Your task to perform on an android device: turn pop-ups on in chrome Image 0: 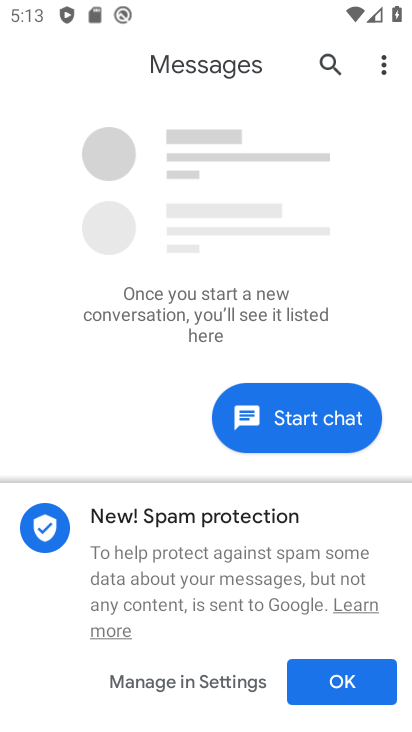
Step 0: press home button
Your task to perform on an android device: turn pop-ups on in chrome Image 1: 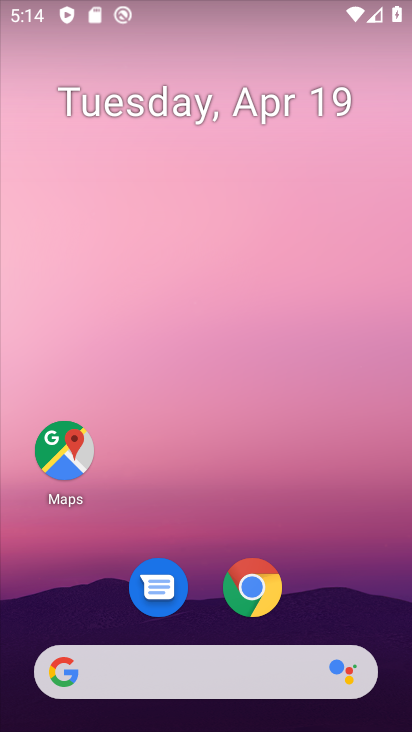
Step 1: click (265, 586)
Your task to perform on an android device: turn pop-ups on in chrome Image 2: 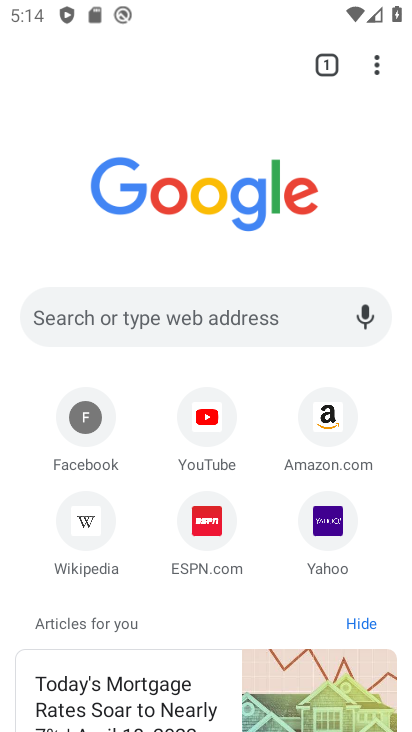
Step 2: click (381, 74)
Your task to perform on an android device: turn pop-ups on in chrome Image 3: 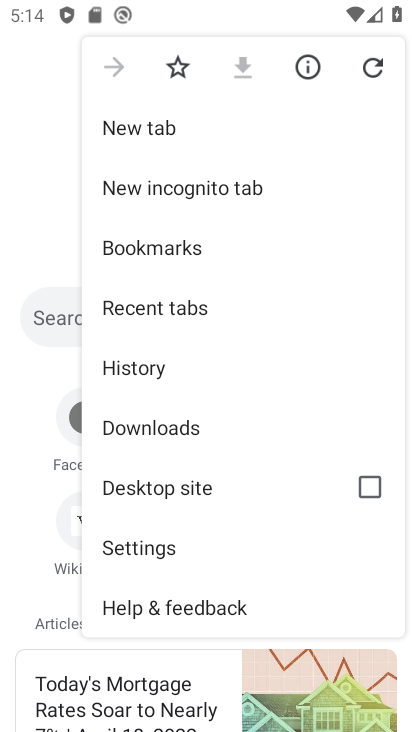
Step 3: click (143, 545)
Your task to perform on an android device: turn pop-ups on in chrome Image 4: 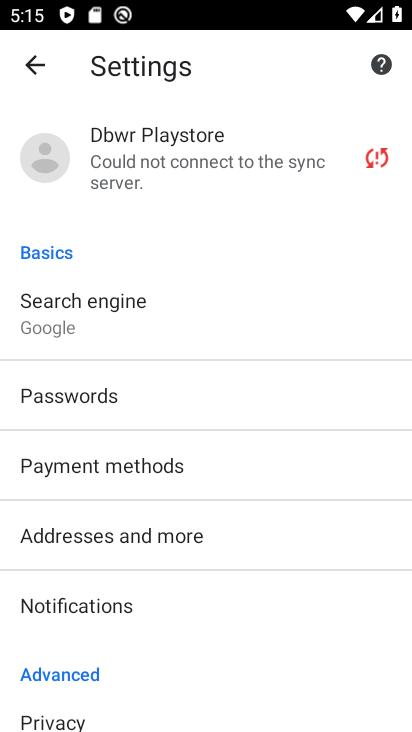
Step 4: drag from (169, 642) to (228, 216)
Your task to perform on an android device: turn pop-ups on in chrome Image 5: 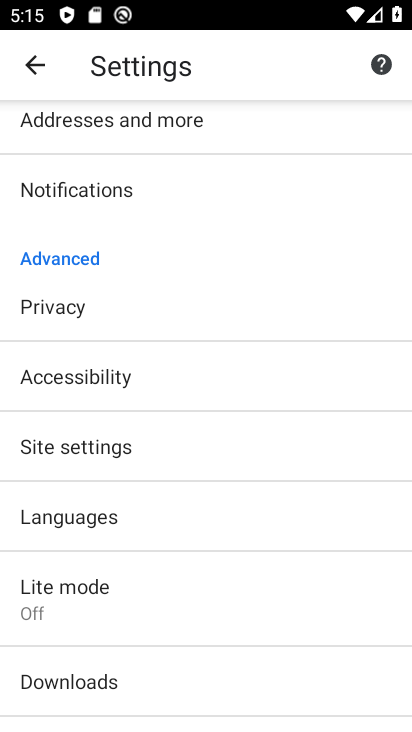
Step 5: click (194, 470)
Your task to perform on an android device: turn pop-ups on in chrome Image 6: 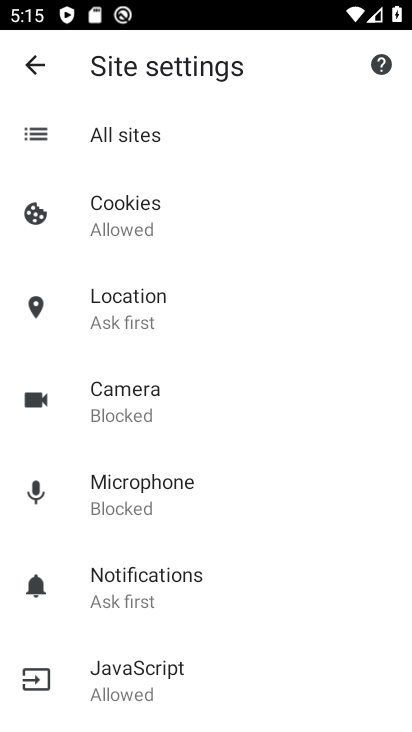
Step 6: drag from (143, 663) to (174, 202)
Your task to perform on an android device: turn pop-ups on in chrome Image 7: 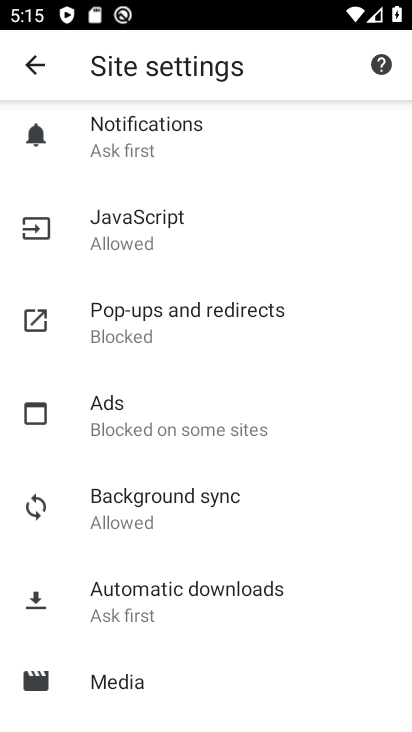
Step 7: click (126, 341)
Your task to perform on an android device: turn pop-ups on in chrome Image 8: 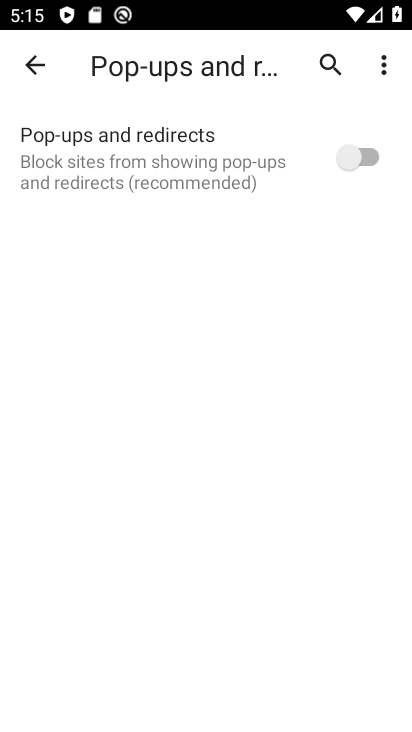
Step 8: click (365, 156)
Your task to perform on an android device: turn pop-ups on in chrome Image 9: 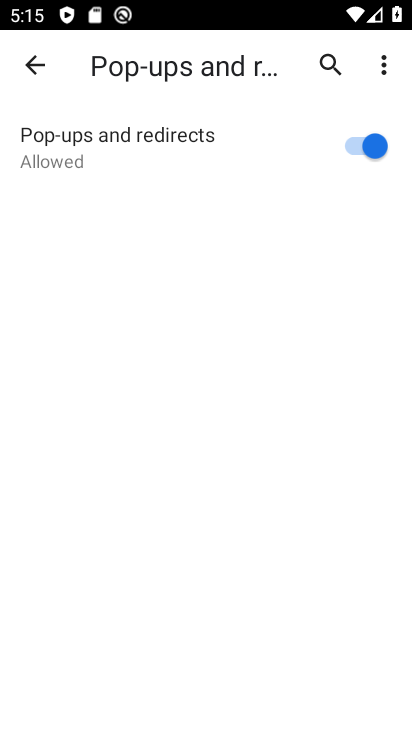
Step 9: task complete